Your task to perform on an android device: turn off translation in the chrome app Image 0: 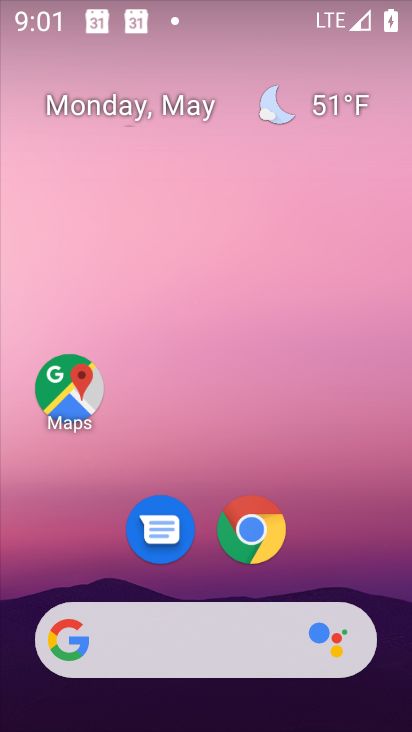
Step 0: press home button
Your task to perform on an android device: turn off translation in the chrome app Image 1: 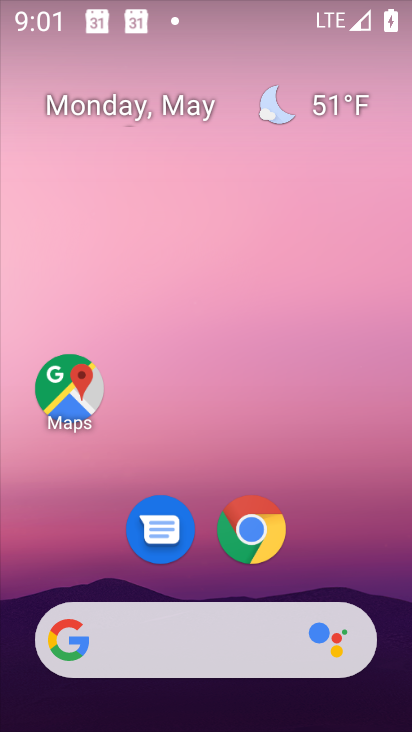
Step 1: click (279, 527)
Your task to perform on an android device: turn off translation in the chrome app Image 2: 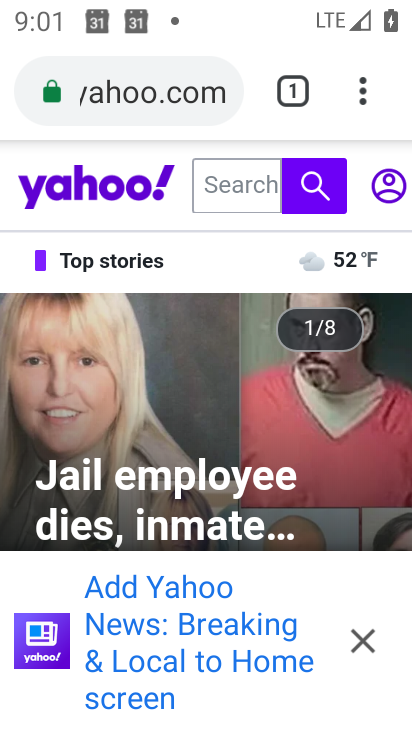
Step 2: click (350, 92)
Your task to perform on an android device: turn off translation in the chrome app Image 3: 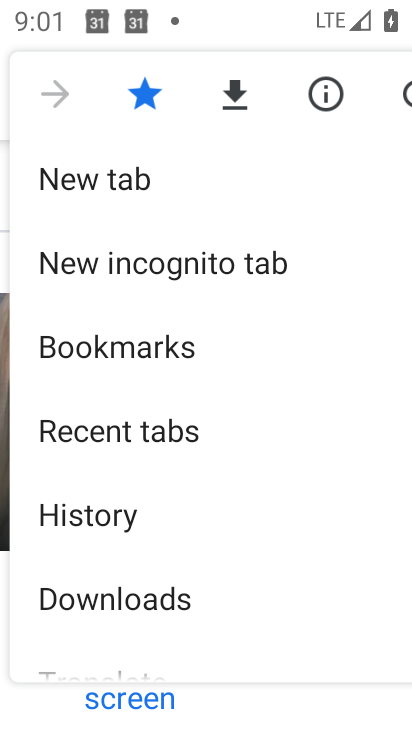
Step 3: drag from (134, 617) to (230, 162)
Your task to perform on an android device: turn off translation in the chrome app Image 4: 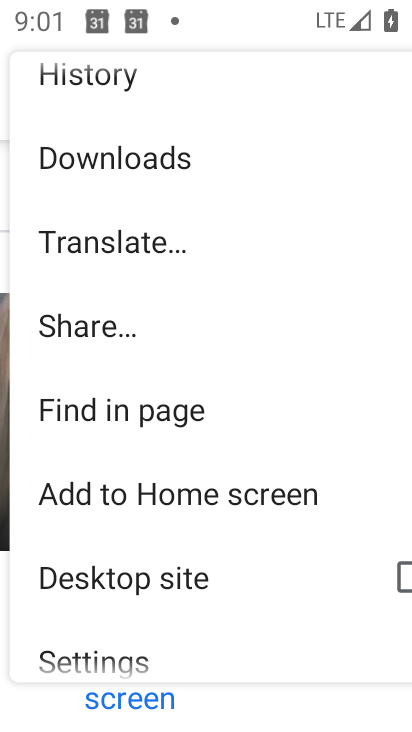
Step 4: drag from (122, 651) to (217, 282)
Your task to perform on an android device: turn off translation in the chrome app Image 5: 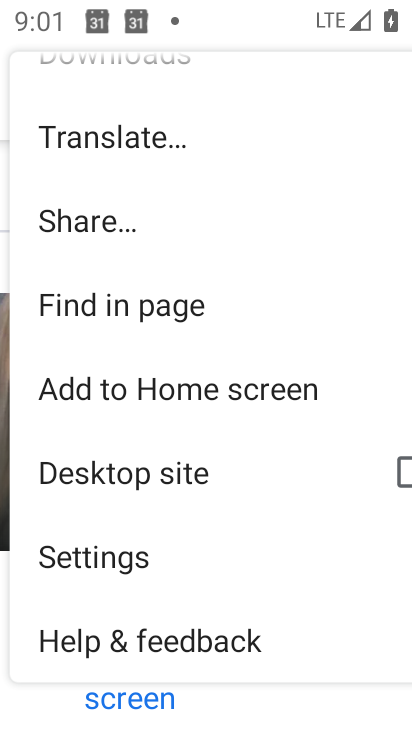
Step 5: click (129, 139)
Your task to perform on an android device: turn off translation in the chrome app Image 6: 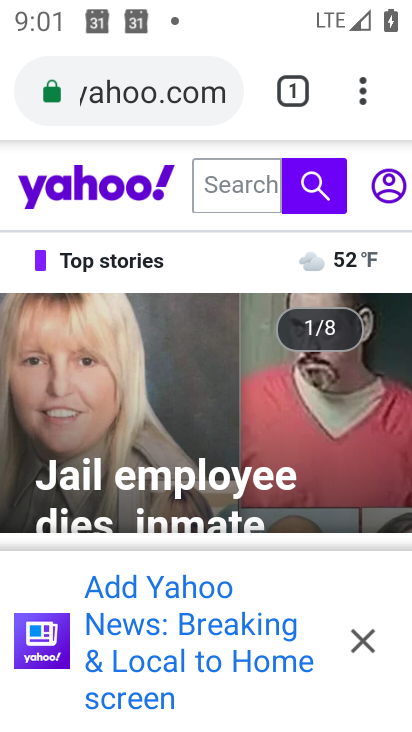
Step 6: click (361, 84)
Your task to perform on an android device: turn off translation in the chrome app Image 7: 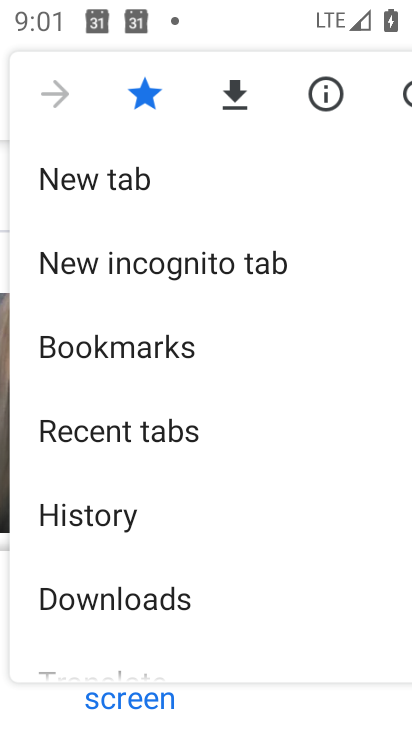
Step 7: drag from (134, 608) to (198, 249)
Your task to perform on an android device: turn off translation in the chrome app Image 8: 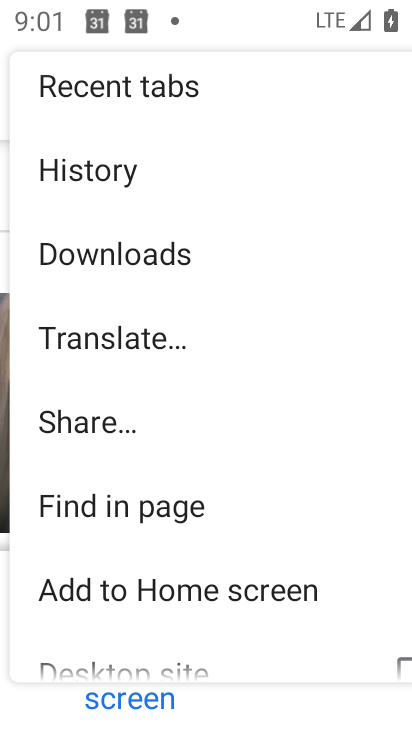
Step 8: drag from (120, 616) to (201, 244)
Your task to perform on an android device: turn off translation in the chrome app Image 9: 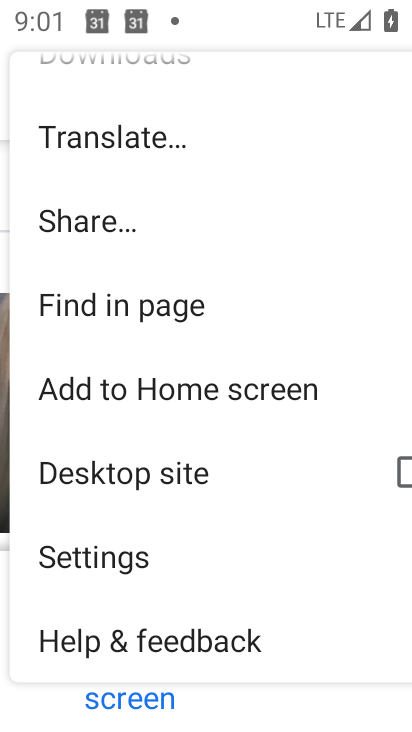
Step 9: click (150, 575)
Your task to perform on an android device: turn off translation in the chrome app Image 10: 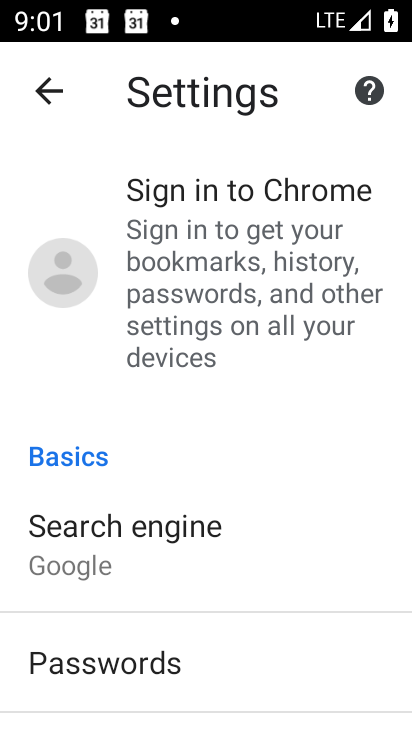
Step 10: drag from (107, 682) to (211, 264)
Your task to perform on an android device: turn off translation in the chrome app Image 11: 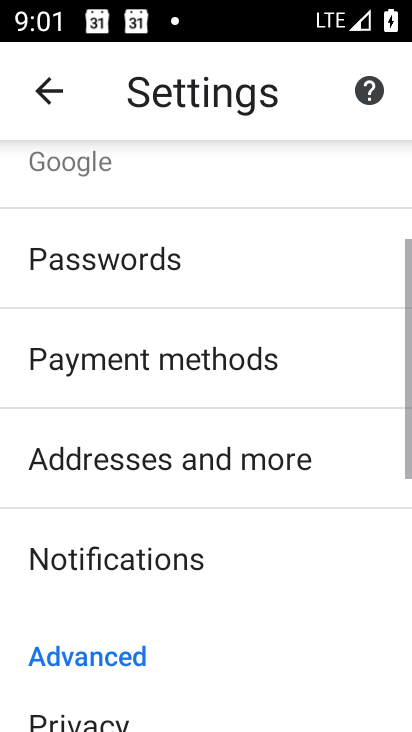
Step 11: drag from (172, 665) to (240, 289)
Your task to perform on an android device: turn off translation in the chrome app Image 12: 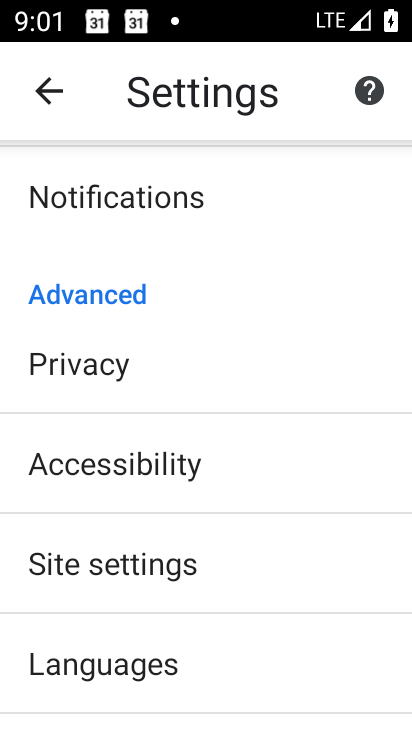
Step 12: click (48, 679)
Your task to perform on an android device: turn off translation in the chrome app Image 13: 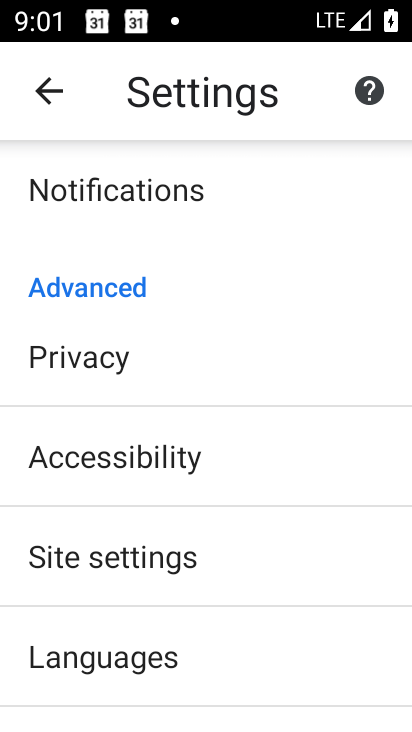
Step 13: click (56, 658)
Your task to perform on an android device: turn off translation in the chrome app Image 14: 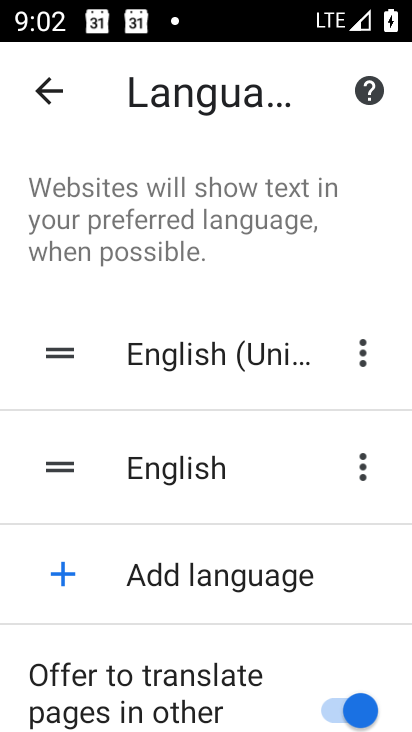
Step 14: click (358, 727)
Your task to perform on an android device: turn off translation in the chrome app Image 15: 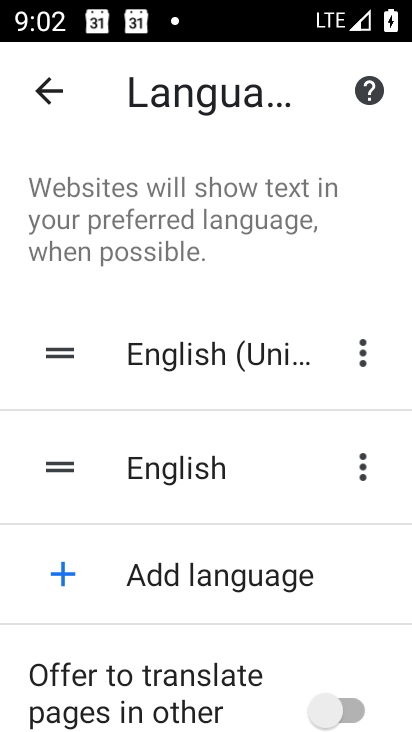
Step 15: task complete